Your task to perform on an android device: open a bookmark in the chrome app Image 0: 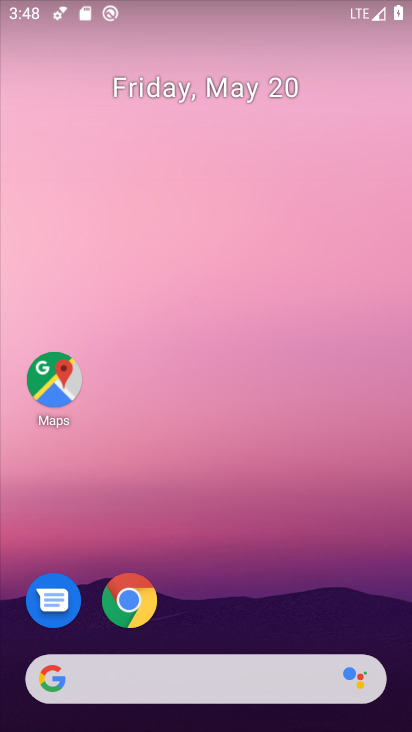
Step 0: drag from (359, 617) to (345, 274)
Your task to perform on an android device: open a bookmark in the chrome app Image 1: 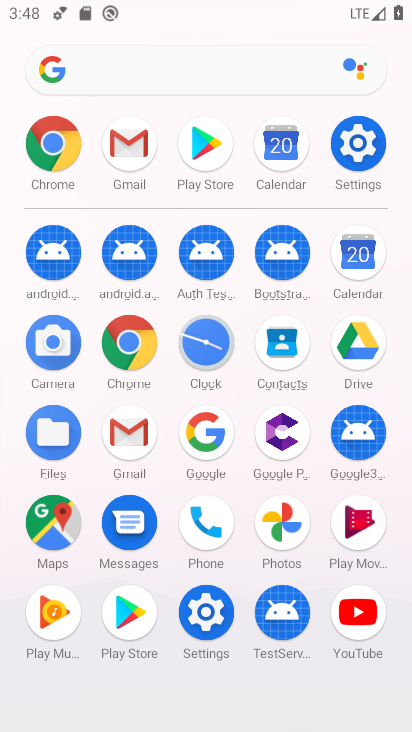
Step 1: click (138, 343)
Your task to perform on an android device: open a bookmark in the chrome app Image 2: 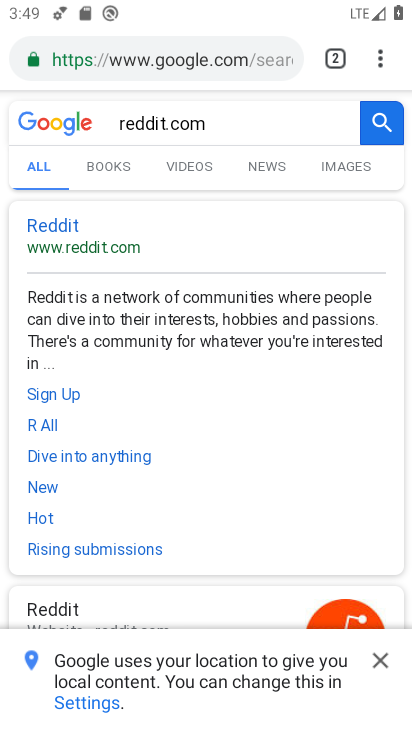
Step 2: click (383, 60)
Your task to perform on an android device: open a bookmark in the chrome app Image 3: 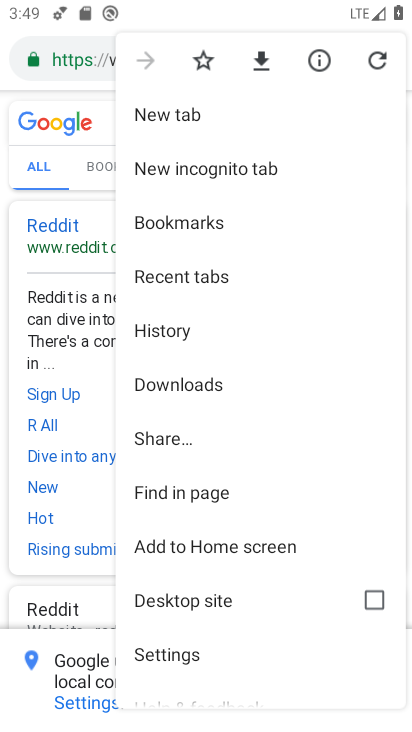
Step 3: drag from (322, 485) to (329, 389)
Your task to perform on an android device: open a bookmark in the chrome app Image 4: 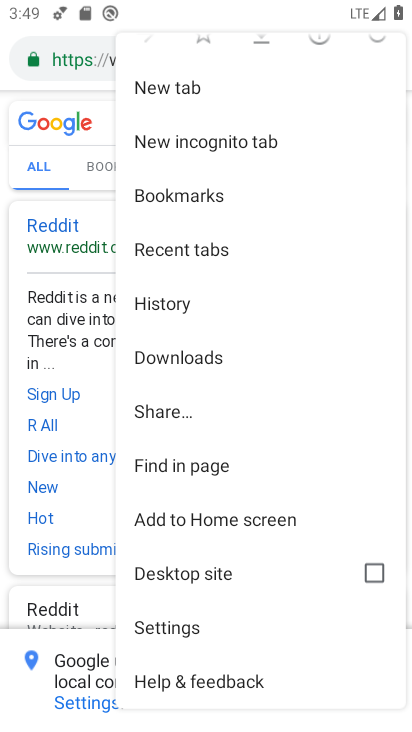
Step 4: drag from (311, 599) to (311, 532)
Your task to perform on an android device: open a bookmark in the chrome app Image 5: 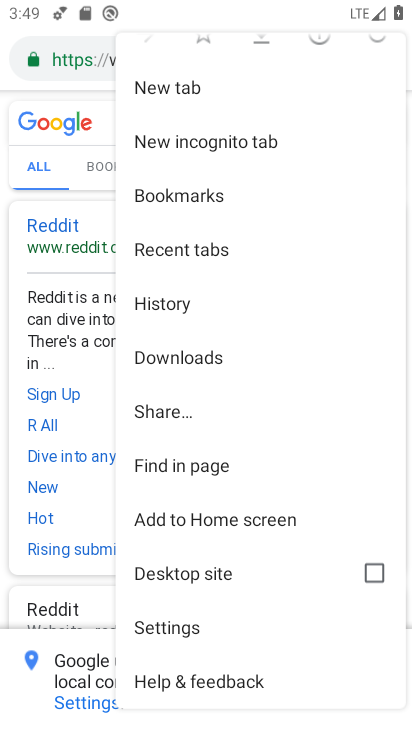
Step 5: drag from (291, 331) to (288, 466)
Your task to perform on an android device: open a bookmark in the chrome app Image 6: 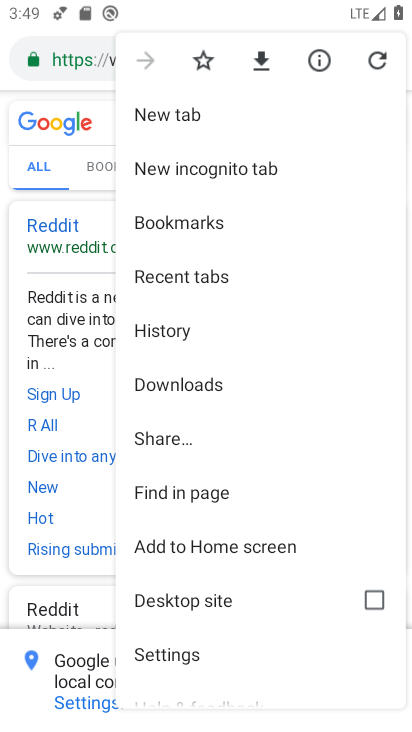
Step 6: click (207, 229)
Your task to perform on an android device: open a bookmark in the chrome app Image 7: 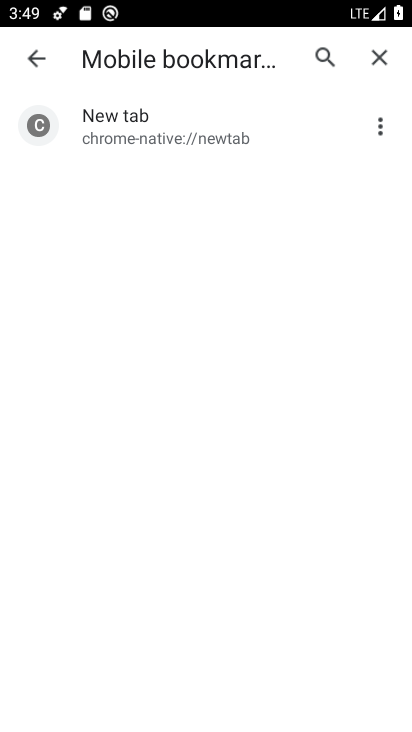
Step 7: click (171, 130)
Your task to perform on an android device: open a bookmark in the chrome app Image 8: 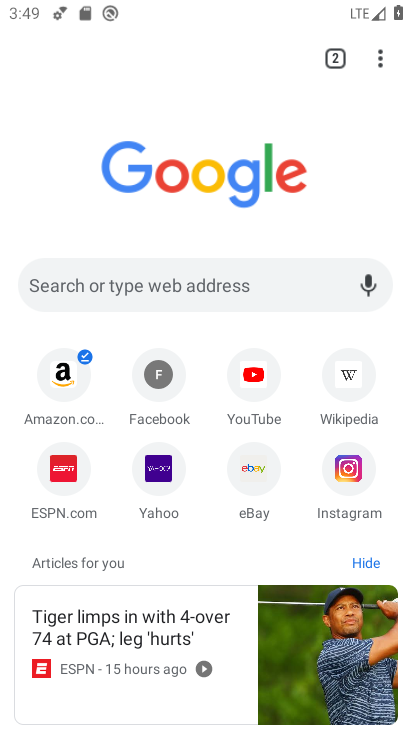
Step 8: task complete